Your task to perform on an android device: change the clock style Image 0: 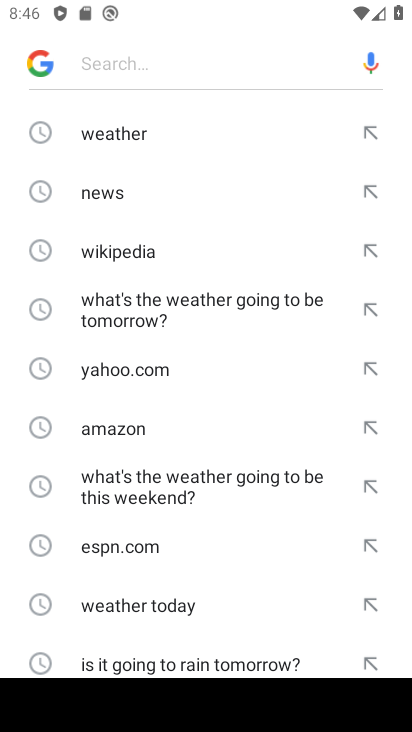
Step 0: press home button
Your task to perform on an android device: change the clock style Image 1: 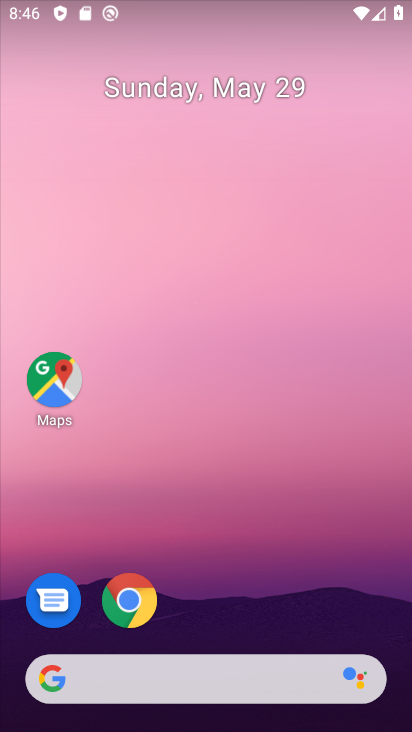
Step 1: drag from (223, 725) to (224, 138)
Your task to perform on an android device: change the clock style Image 2: 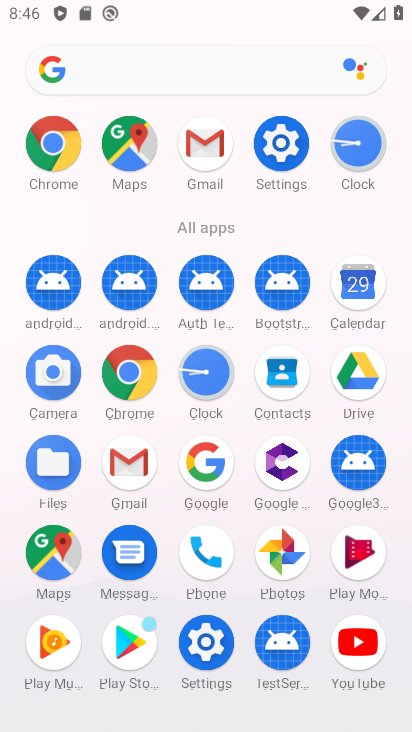
Step 2: click (203, 379)
Your task to perform on an android device: change the clock style Image 3: 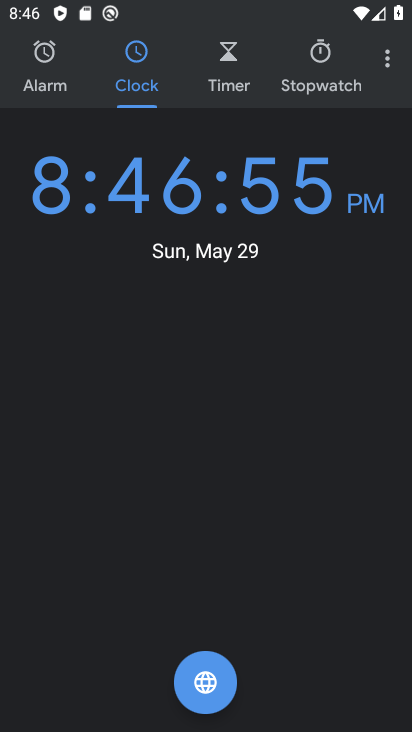
Step 3: click (391, 66)
Your task to perform on an android device: change the clock style Image 4: 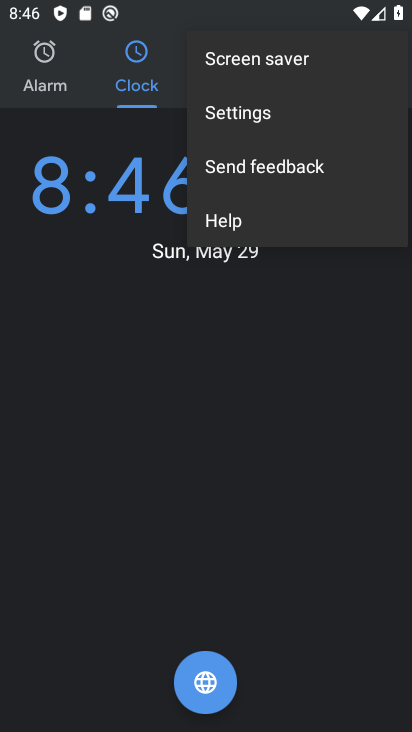
Step 4: click (240, 112)
Your task to perform on an android device: change the clock style Image 5: 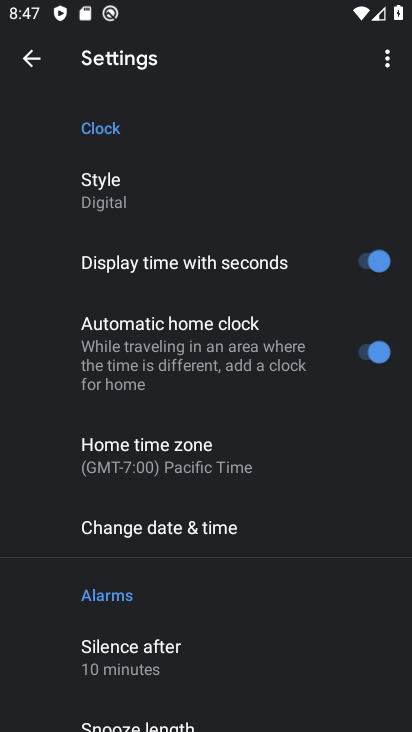
Step 5: drag from (173, 687) to (161, 363)
Your task to perform on an android device: change the clock style Image 6: 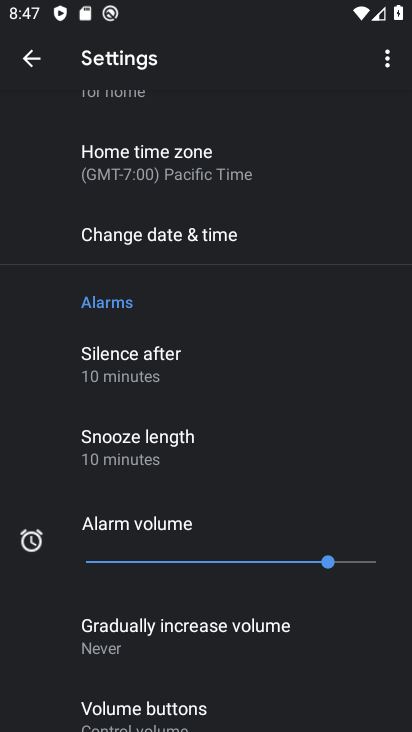
Step 6: drag from (235, 125) to (231, 568)
Your task to perform on an android device: change the clock style Image 7: 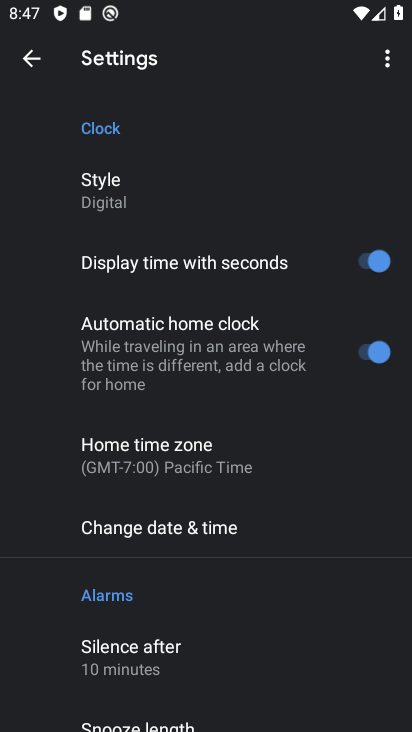
Step 7: click (106, 200)
Your task to perform on an android device: change the clock style Image 8: 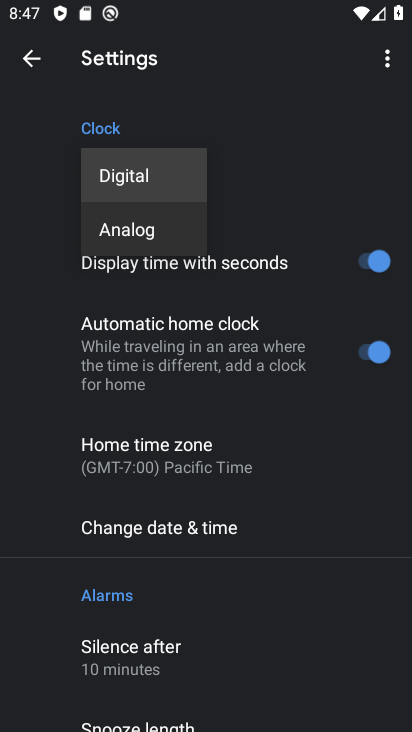
Step 8: click (123, 224)
Your task to perform on an android device: change the clock style Image 9: 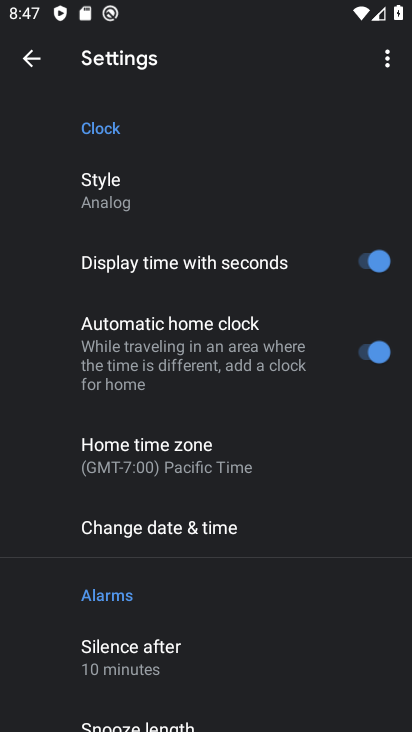
Step 9: task complete